Your task to perform on an android device: open app "VLC for Android" (install if not already installed), go to login, and select forgot password Image 0: 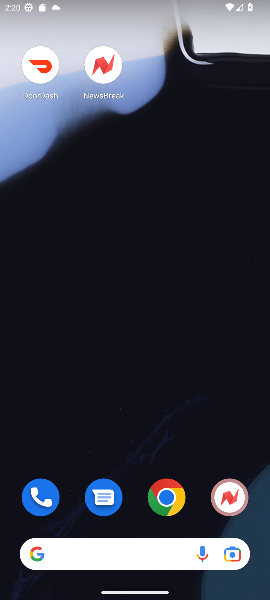
Step 0: drag from (138, 499) to (161, 218)
Your task to perform on an android device: open app "VLC for Android" (install if not already installed), go to login, and select forgot password Image 1: 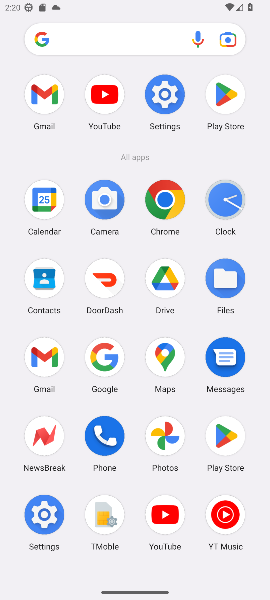
Step 1: click (223, 95)
Your task to perform on an android device: open app "VLC for Android" (install if not already installed), go to login, and select forgot password Image 2: 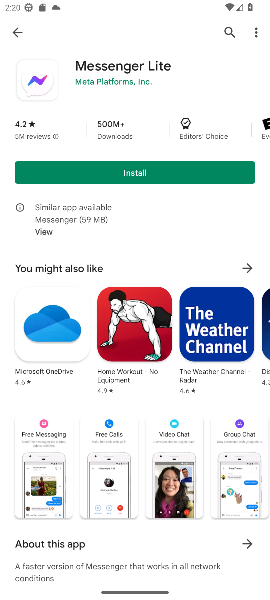
Step 2: click (20, 41)
Your task to perform on an android device: open app "VLC for Android" (install if not already installed), go to login, and select forgot password Image 3: 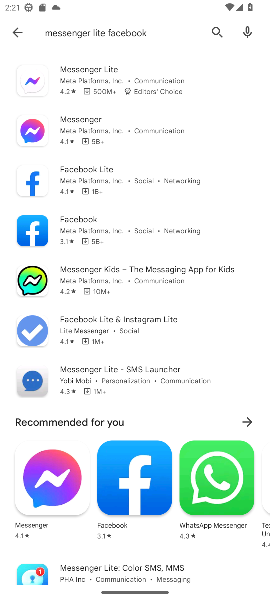
Step 3: click (33, 32)
Your task to perform on an android device: open app "VLC for Android" (install if not already installed), go to login, and select forgot password Image 4: 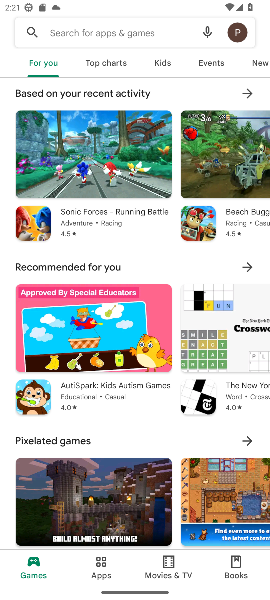
Step 4: click (104, 28)
Your task to perform on an android device: open app "VLC for Android" (install if not already installed), go to login, and select forgot password Image 5: 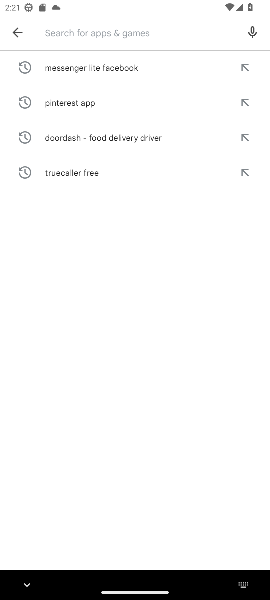
Step 5: type "vlc "
Your task to perform on an android device: open app "VLC for Android" (install if not already installed), go to login, and select forgot password Image 6: 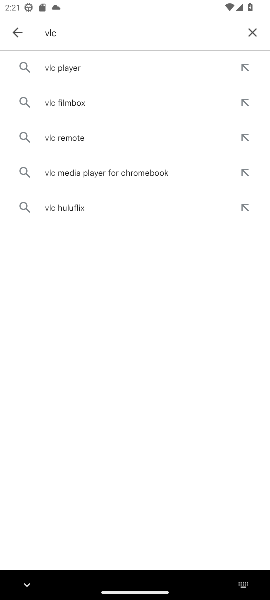
Step 6: click (78, 68)
Your task to perform on an android device: open app "VLC for Android" (install if not already installed), go to login, and select forgot password Image 7: 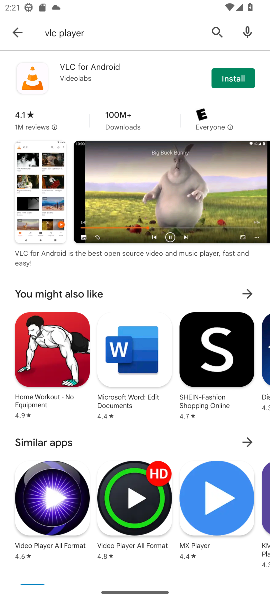
Step 7: click (230, 68)
Your task to perform on an android device: open app "VLC for Android" (install if not already installed), go to login, and select forgot password Image 8: 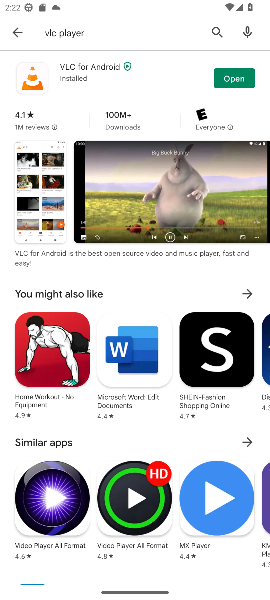
Step 8: task complete